Your task to perform on an android device: toggle priority inbox in the gmail app Image 0: 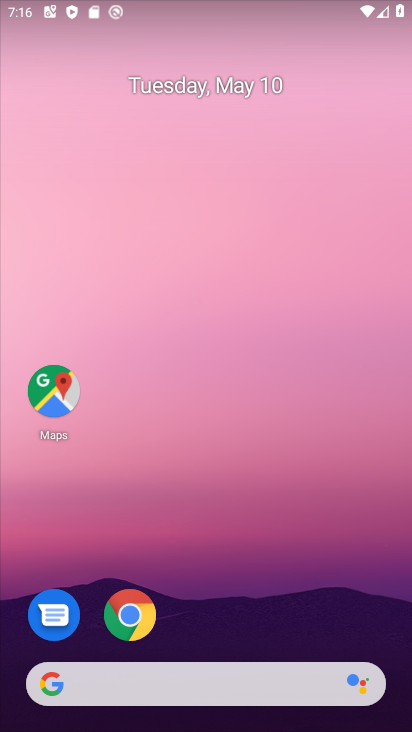
Step 0: drag from (254, 508) to (163, 1)
Your task to perform on an android device: toggle priority inbox in the gmail app Image 1: 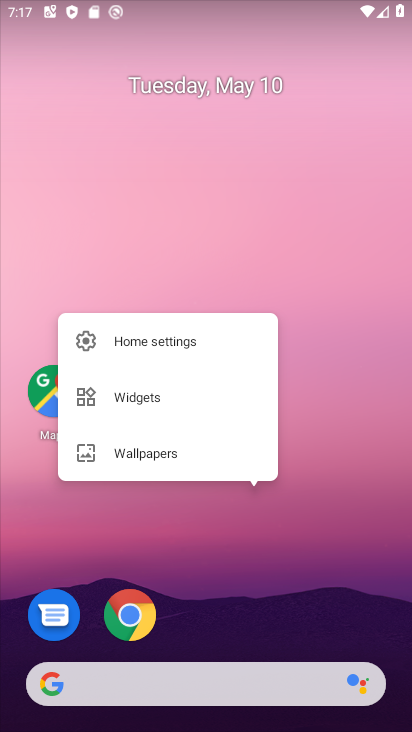
Step 1: click (293, 524)
Your task to perform on an android device: toggle priority inbox in the gmail app Image 2: 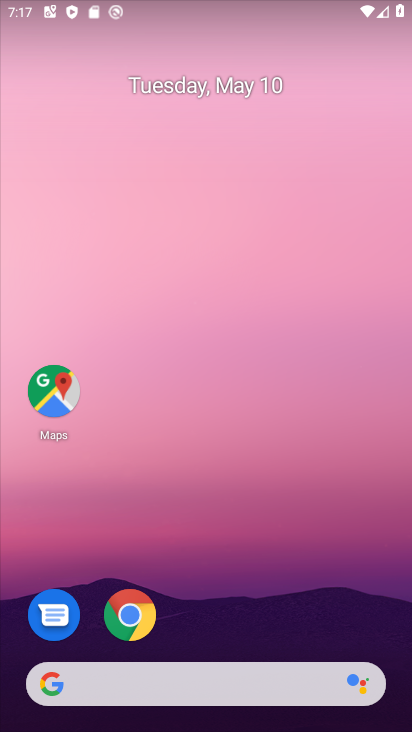
Step 2: drag from (225, 546) to (177, 73)
Your task to perform on an android device: toggle priority inbox in the gmail app Image 3: 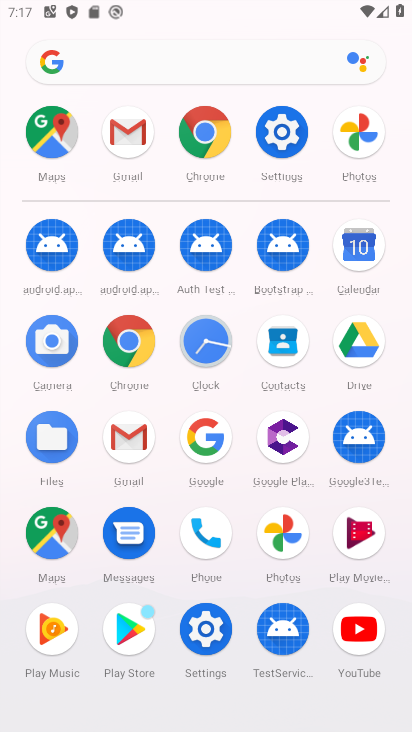
Step 3: click (126, 128)
Your task to perform on an android device: toggle priority inbox in the gmail app Image 4: 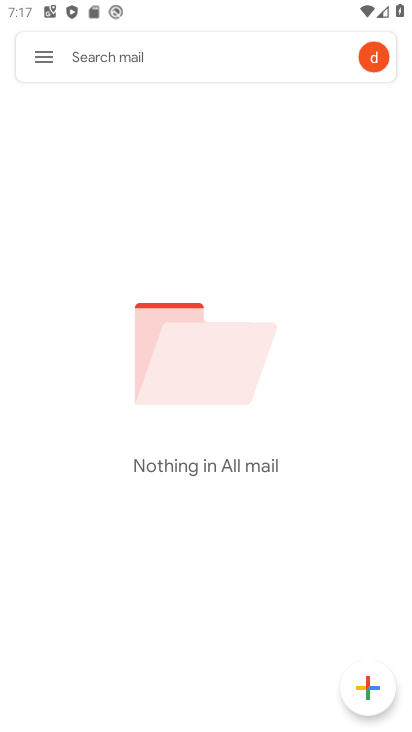
Step 4: click (44, 57)
Your task to perform on an android device: toggle priority inbox in the gmail app Image 5: 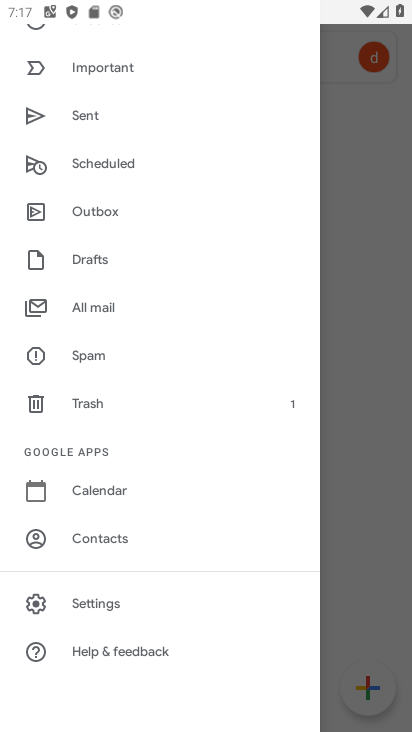
Step 5: click (86, 598)
Your task to perform on an android device: toggle priority inbox in the gmail app Image 6: 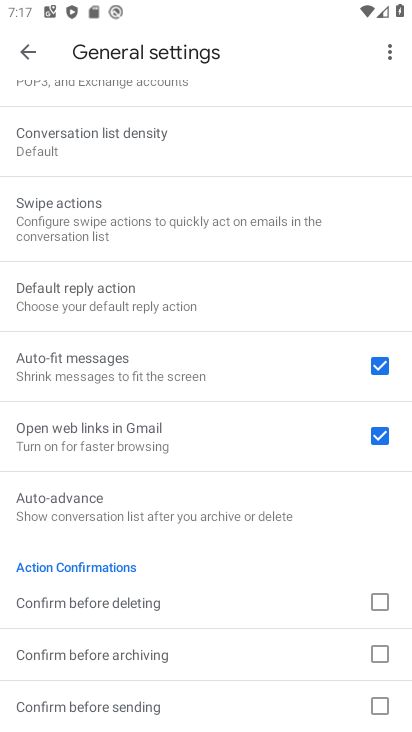
Step 6: click (25, 48)
Your task to perform on an android device: toggle priority inbox in the gmail app Image 7: 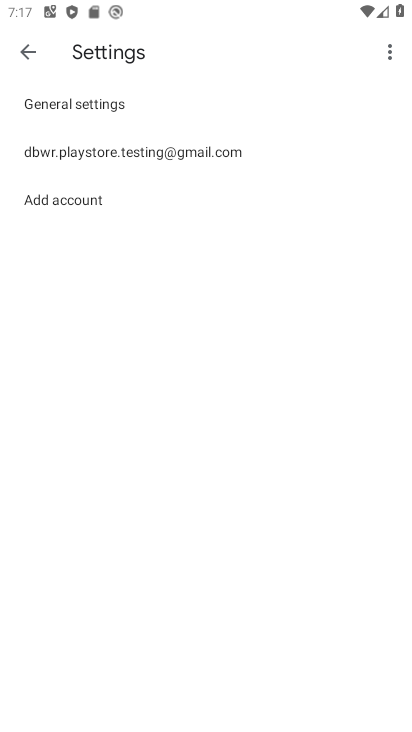
Step 7: click (112, 152)
Your task to perform on an android device: toggle priority inbox in the gmail app Image 8: 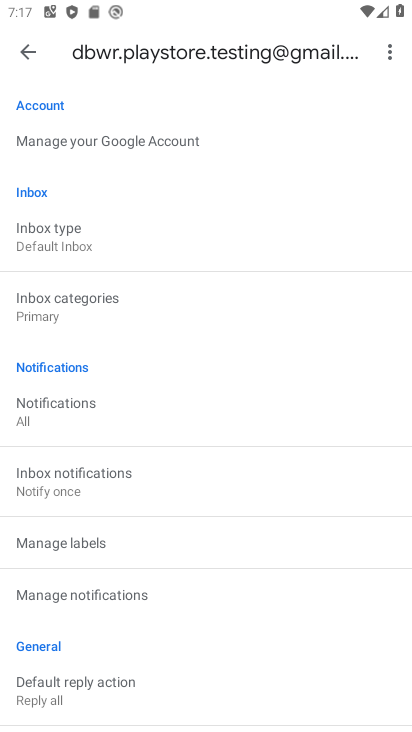
Step 8: click (57, 230)
Your task to perform on an android device: toggle priority inbox in the gmail app Image 9: 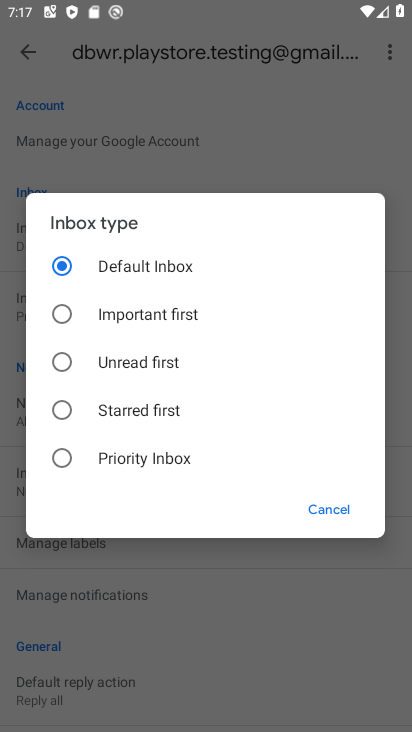
Step 9: click (60, 459)
Your task to perform on an android device: toggle priority inbox in the gmail app Image 10: 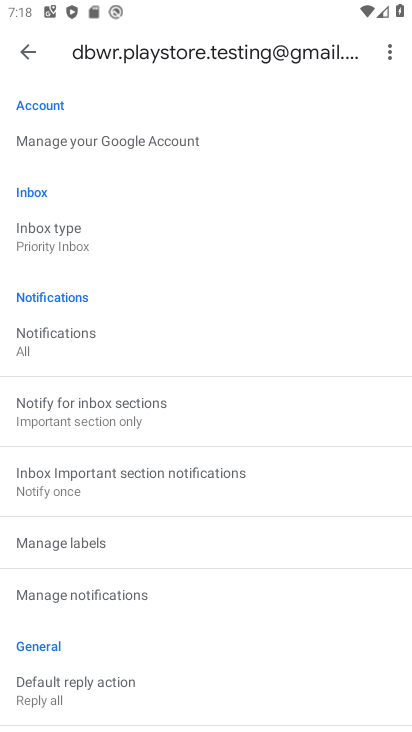
Step 10: task complete